Your task to perform on an android device: Go to Google maps Image 0: 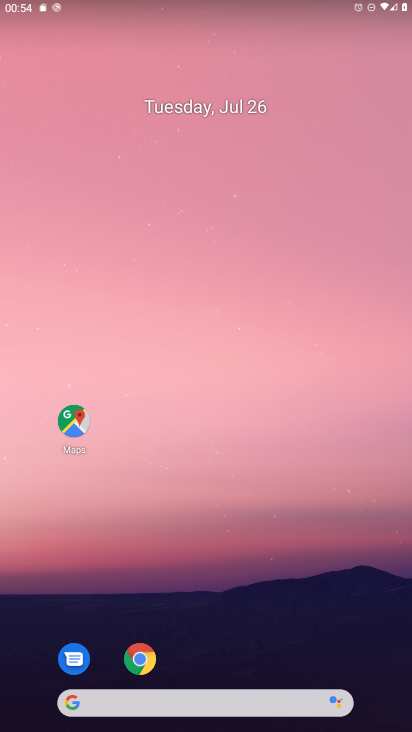
Step 0: drag from (273, 599) to (358, 170)
Your task to perform on an android device: Go to Google maps Image 1: 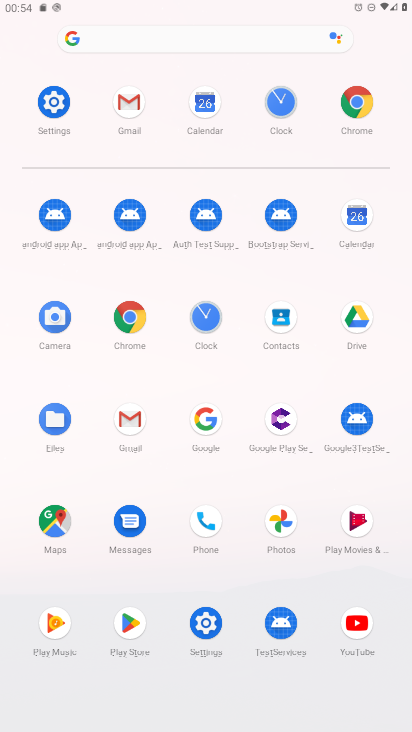
Step 1: click (56, 526)
Your task to perform on an android device: Go to Google maps Image 2: 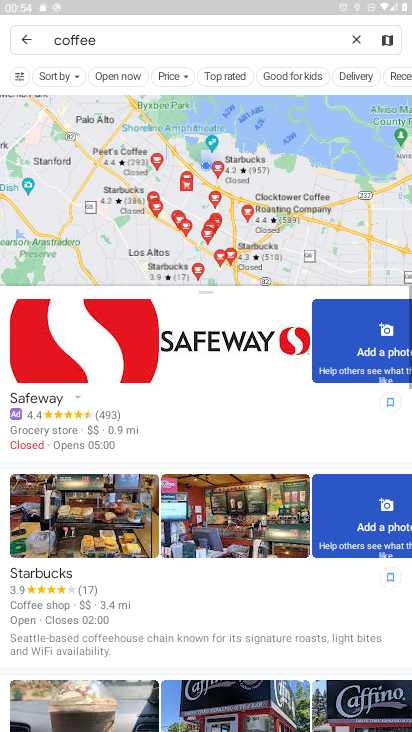
Step 2: click (22, 39)
Your task to perform on an android device: Go to Google maps Image 3: 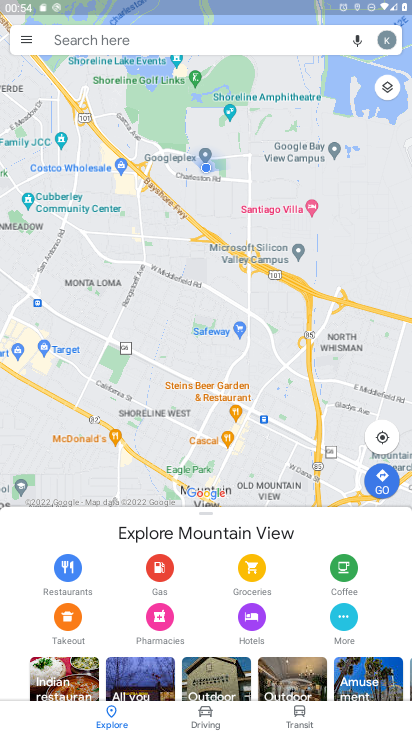
Step 3: task complete